Your task to perform on an android device: turn on data saver in the chrome app Image 0: 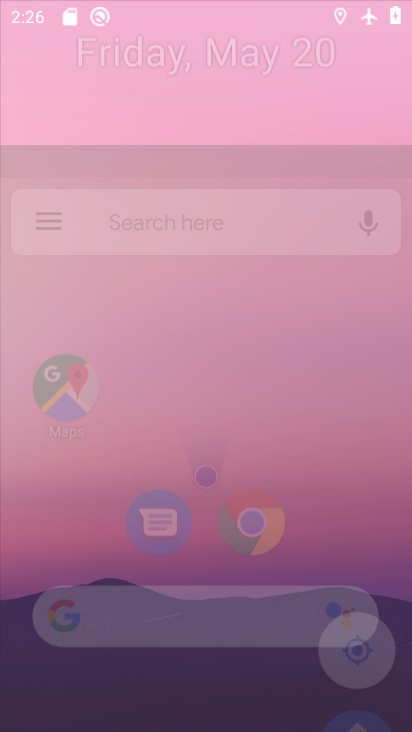
Step 0: click (255, 565)
Your task to perform on an android device: turn on data saver in the chrome app Image 1: 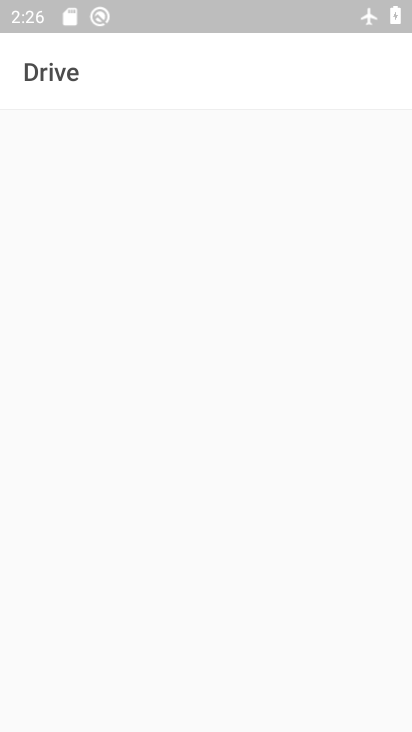
Step 1: press home button
Your task to perform on an android device: turn on data saver in the chrome app Image 2: 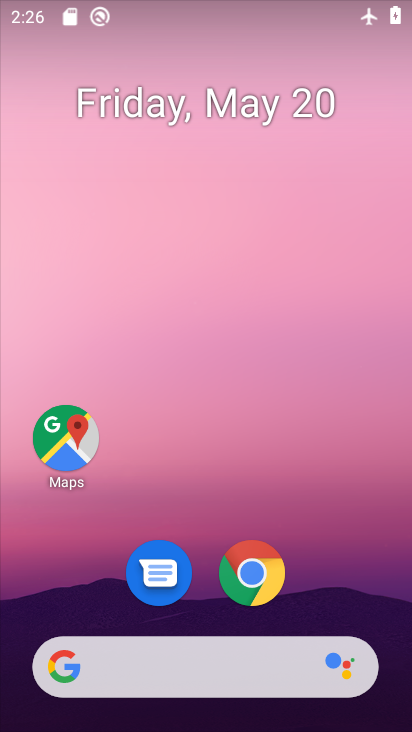
Step 2: click (280, 581)
Your task to perform on an android device: turn on data saver in the chrome app Image 3: 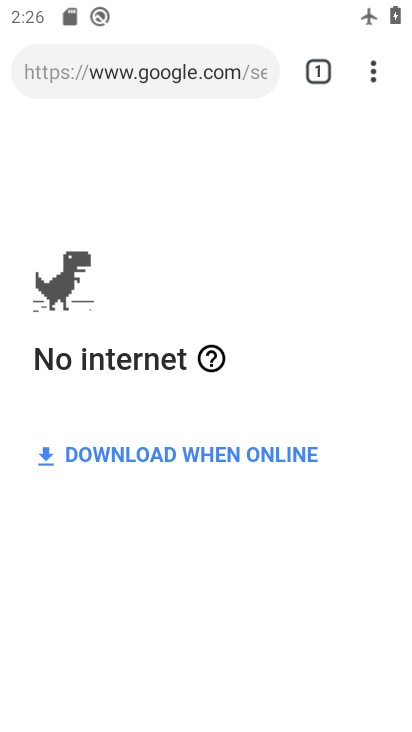
Step 3: drag from (367, 55) to (203, 601)
Your task to perform on an android device: turn on data saver in the chrome app Image 4: 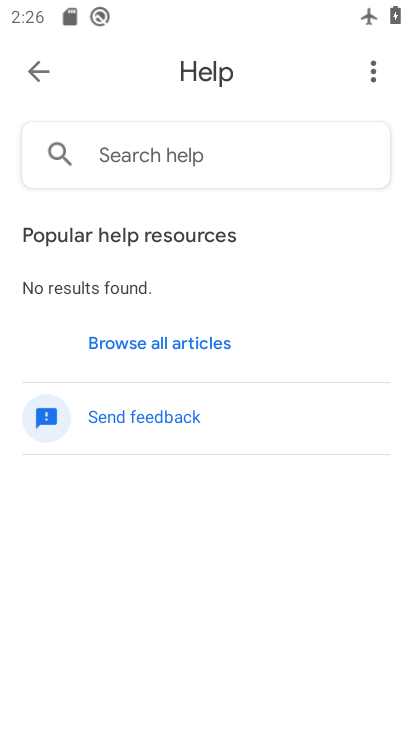
Step 4: click (39, 73)
Your task to perform on an android device: turn on data saver in the chrome app Image 5: 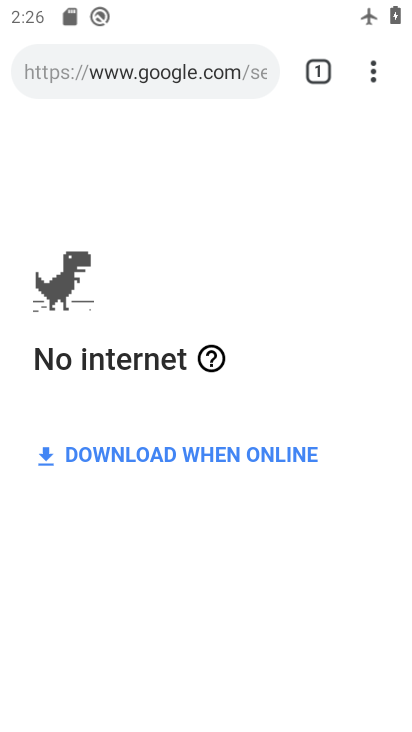
Step 5: drag from (369, 74) to (171, 569)
Your task to perform on an android device: turn on data saver in the chrome app Image 6: 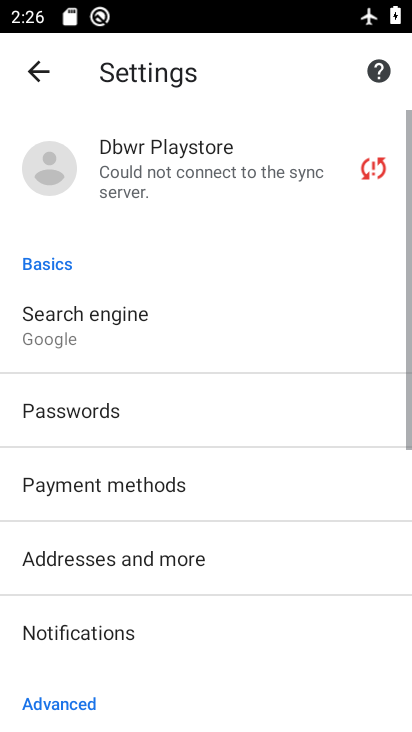
Step 6: drag from (171, 569) to (214, 295)
Your task to perform on an android device: turn on data saver in the chrome app Image 7: 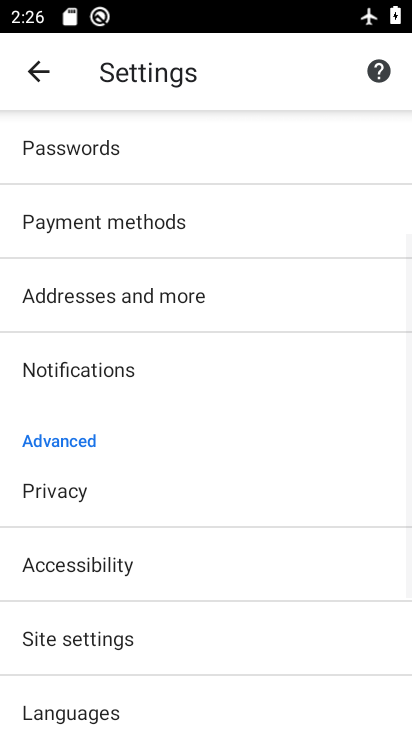
Step 7: drag from (182, 560) to (206, 316)
Your task to perform on an android device: turn on data saver in the chrome app Image 8: 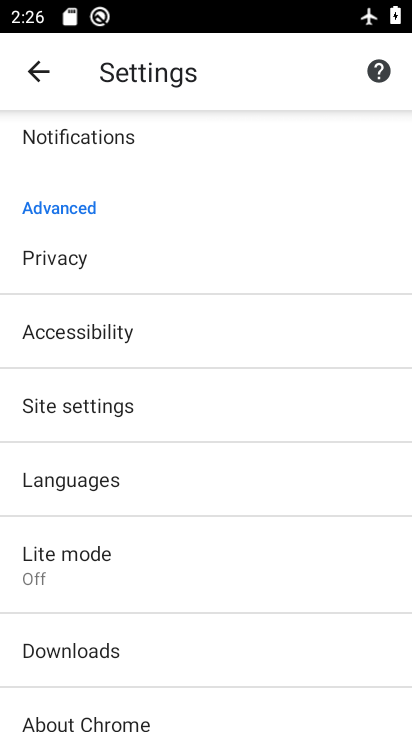
Step 8: drag from (153, 576) to (197, 364)
Your task to perform on an android device: turn on data saver in the chrome app Image 9: 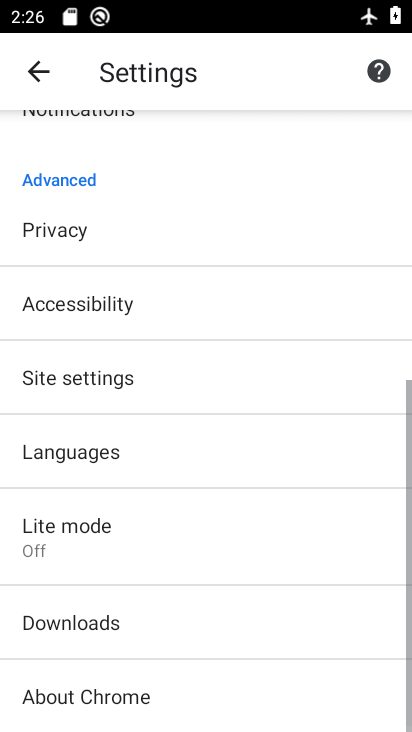
Step 9: drag from (188, 617) to (202, 402)
Your task to perform on an android device: turn on data saver in the chrome app Image 10: 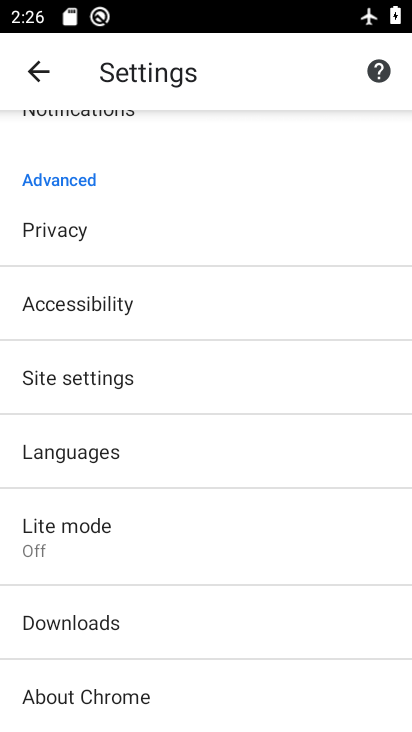
Step 10: click (159, 554)
Your task to perform on an android device: turn on data saver in the chrome app Image 11: 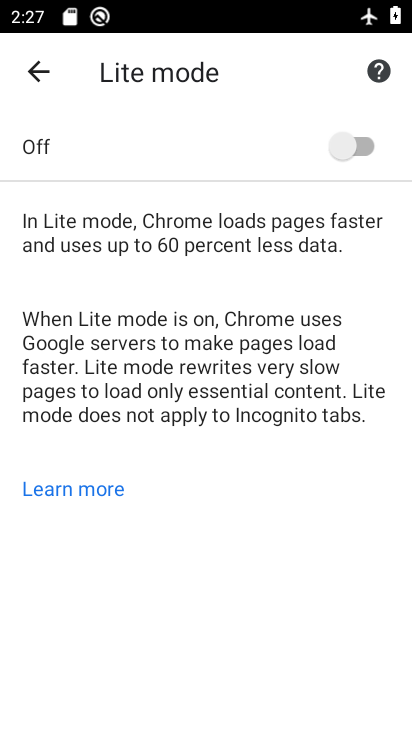
Step 11: click (363, 141)
Your task to perform on an android device: turn on data saver in the chrome app Image 12: 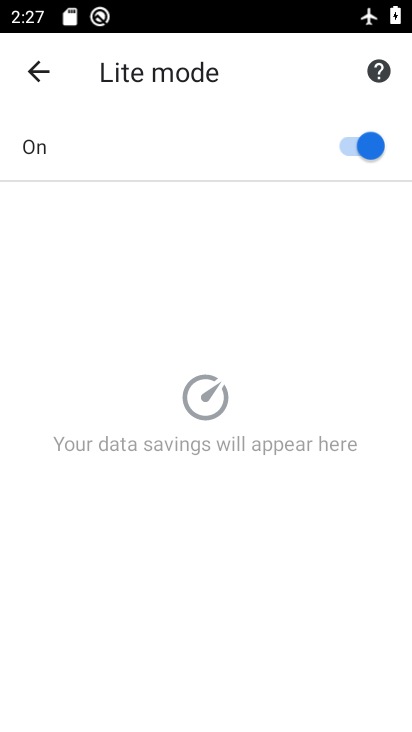
Step 12: task complete